Your task to perform on an android device: turn off wifi Image 0: 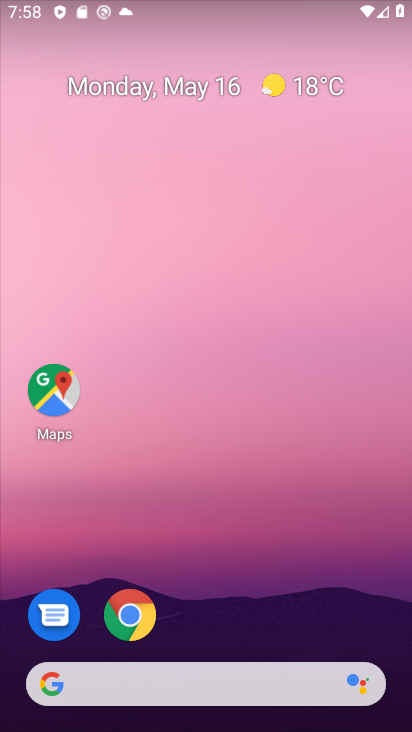
Step 0: drag from (215, 655) to (139, 18)
Your task to perform on an android device: turn off wifi Image 1: 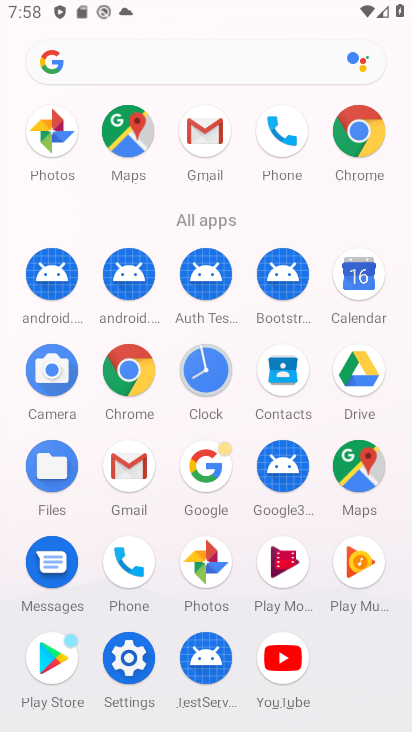
Step 1: click (131, 658)
Your task to perform on an android device: turn off wifi Image 2: 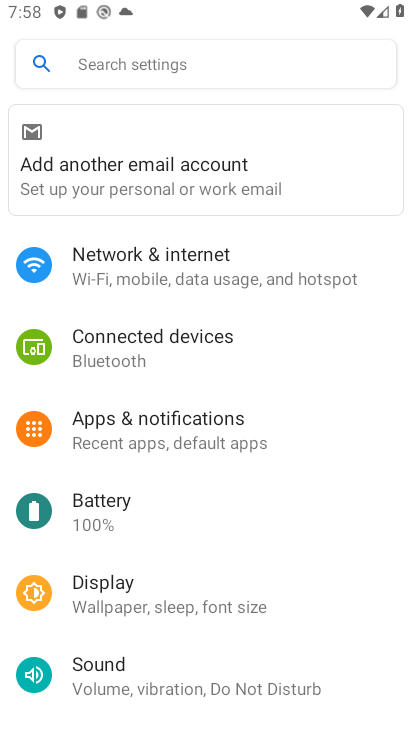
Step 2: click (146, 260)
Your task to perform on an android device: turn off wifi Image 3: 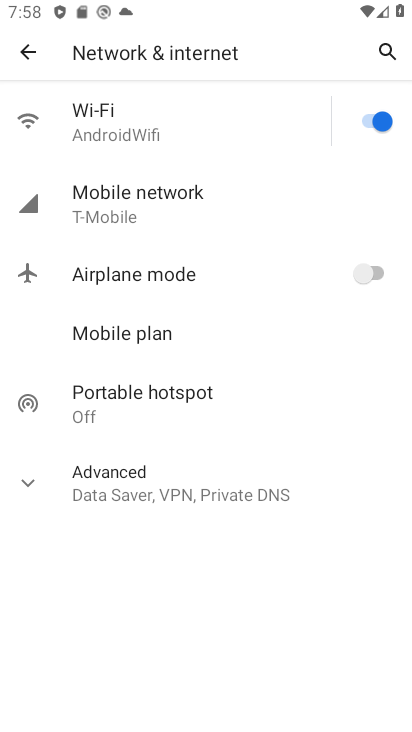
Step 3: click (366, 117)
Your task to perform on an android device: turn off wifi Image 4: 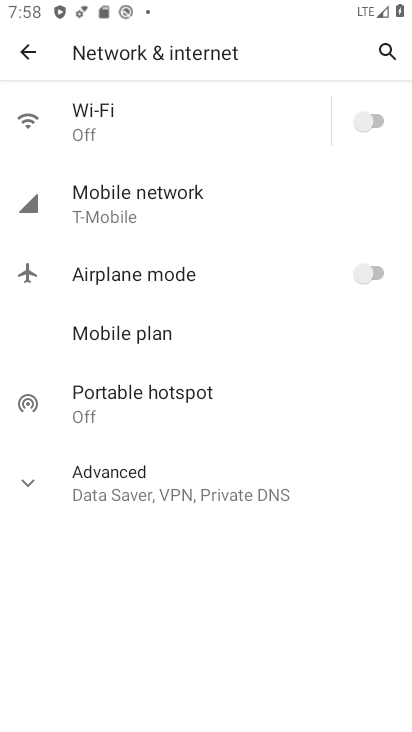
Step 4: task complete